Your task to perform on an android device: turn off data saver in the chrome app Image 0: 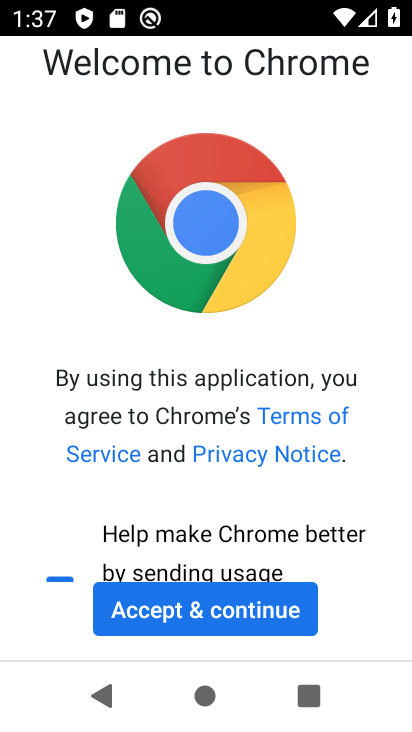
Step 0: press home button
Your task to perform on an android device: turn off data saver in the chrome app Image 1: 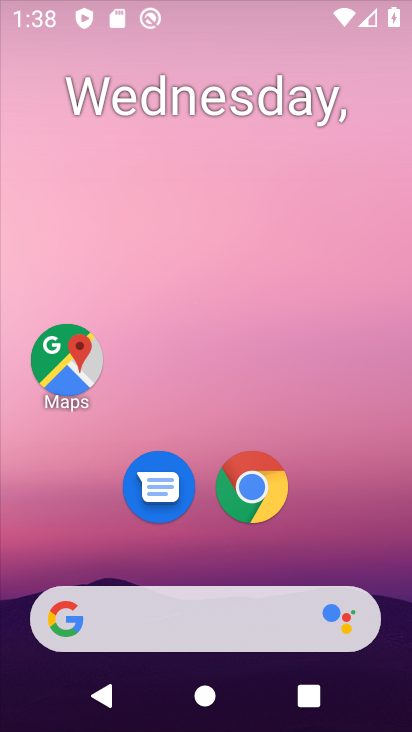
Step 1: drag from (208, 651) to (230, 3)
Your task to perform on an android device: turn off data saver in the chrome app Image 2: 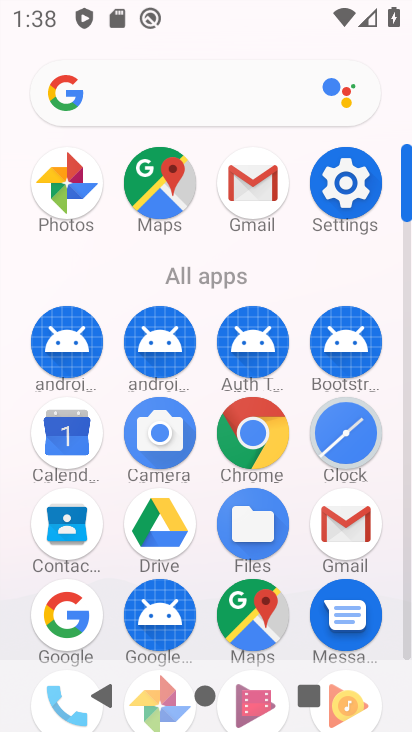
Step 2: click (260, 441)
Your task to perform on an android device: turn off data saver in the chrome app Image 3: 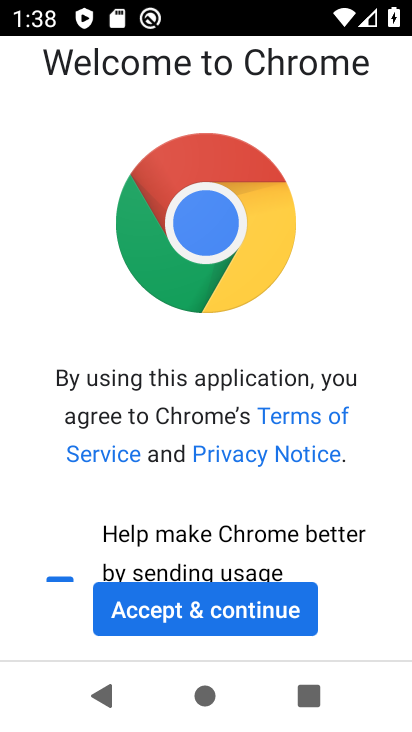
Step 3: click (230, 587)
Your task to perform on an android device: turn off data saver in the chrome app Image 4: 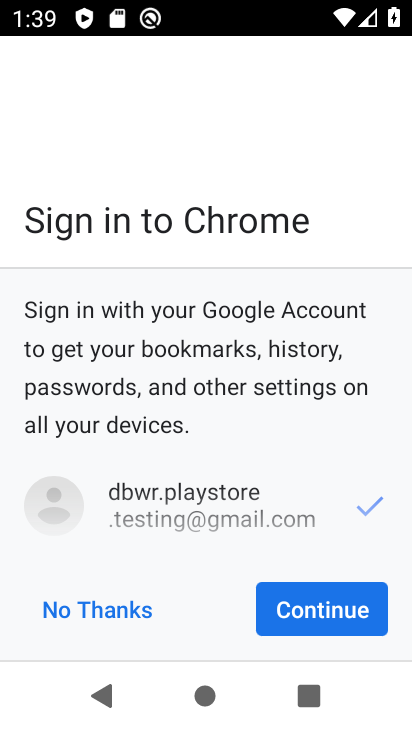
Step 4: click (333, 603)
Your task to perform on an android device: turn off data saver in the chrome app Image 5: 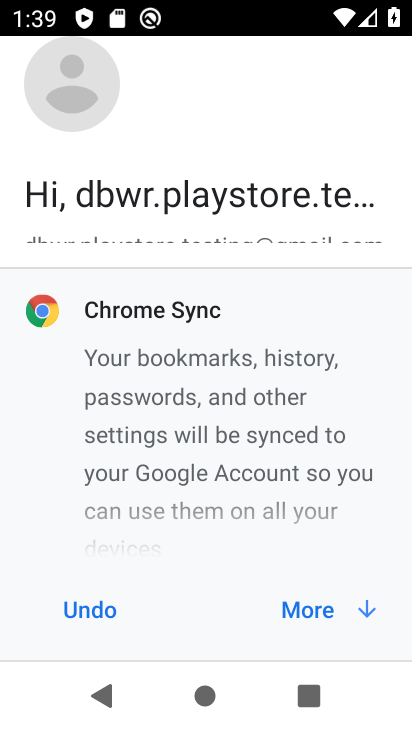
Step 5: click (86, 608)
Your task to perform on an android device: turn off data saver in the chrome app Image 6: 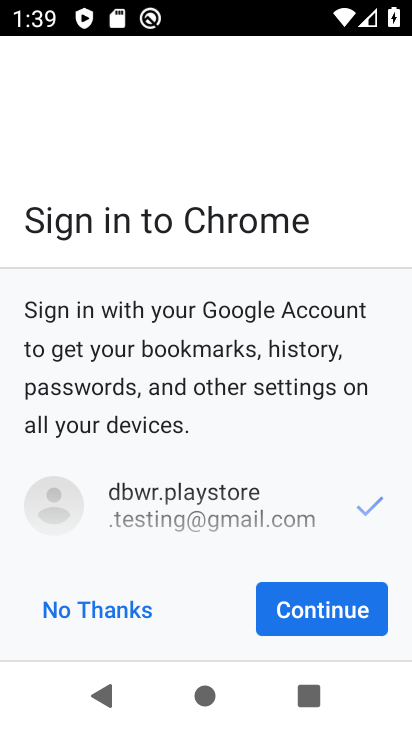
Step 6: click (84, 612)
Your task to perform on an android device: turn off data saver in the chrome app Image 7: 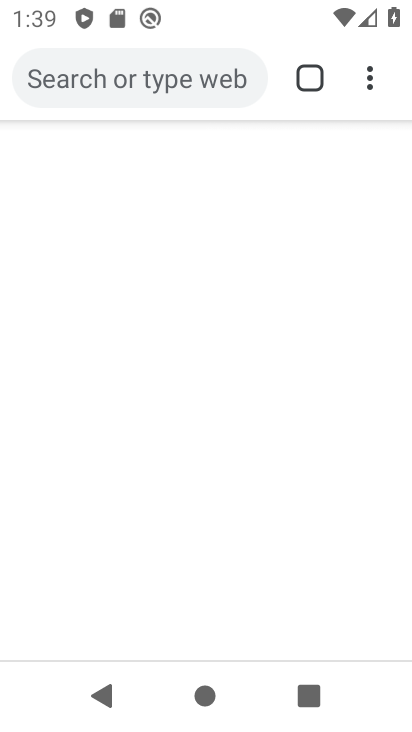
Step 7: drag from (372, 62) to (103, 550)
Your task to perform on an android device: turn off data saver in the chrome app Image 8: 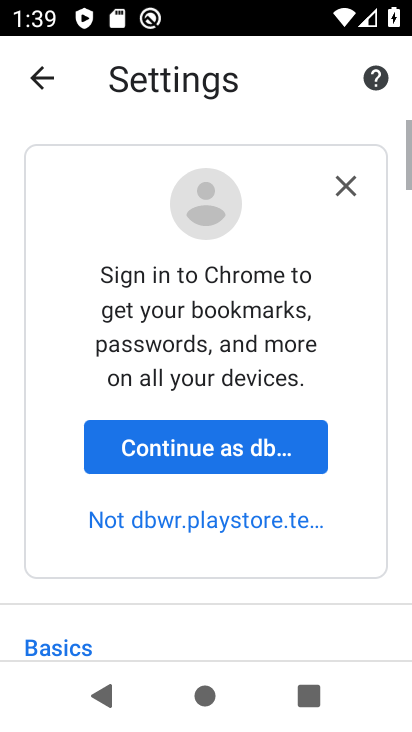
Step 8: drag from (187, 578) to (164, 114)
Your task to perform on an android device: turn off data saver in the chrome app Image 9: 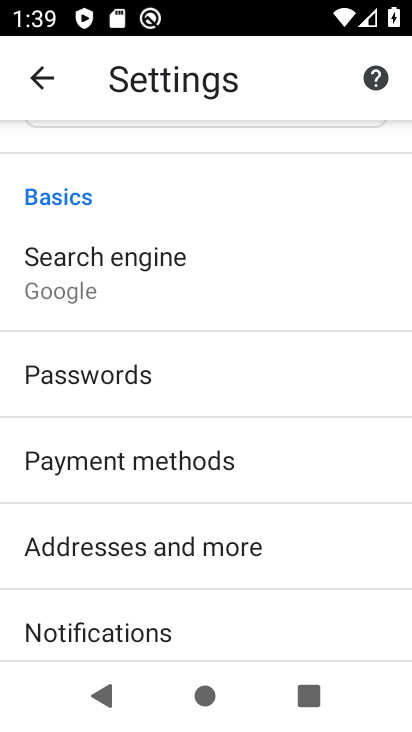
Step 9: drag from (174, 554) to (180, 75)
Your task to perform on an android device: turn off data saver in the chrome app Image 10: 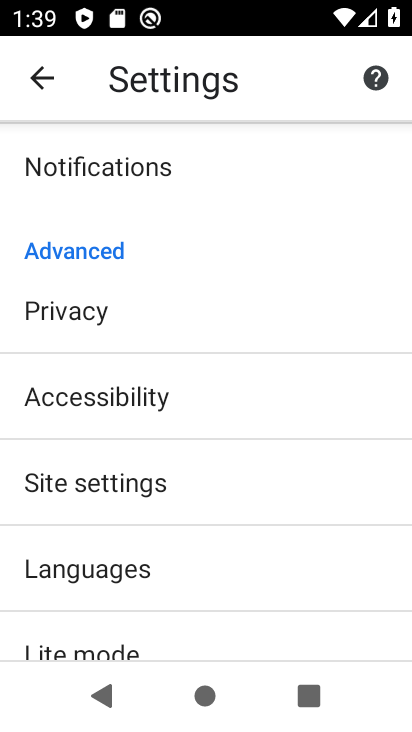
Step 10: drag from (245, 640) to (222, 315)
Your task to perform on an android device: turn off data saver in the chrome app Image 11: 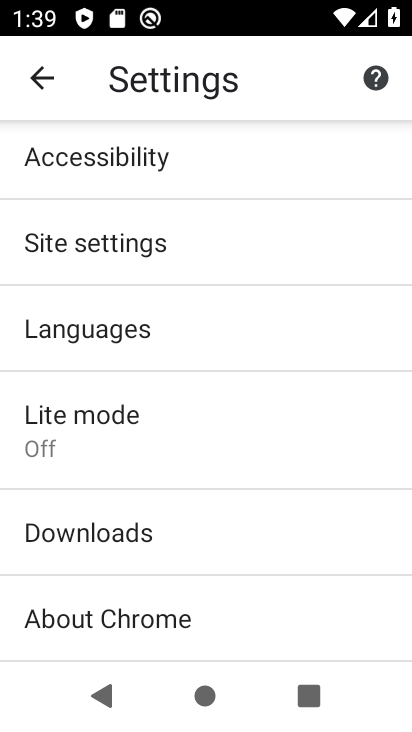
Step 11: click (185, 422)
Your task to perform on an android device: turn off data saver in the chrome app Image 12: 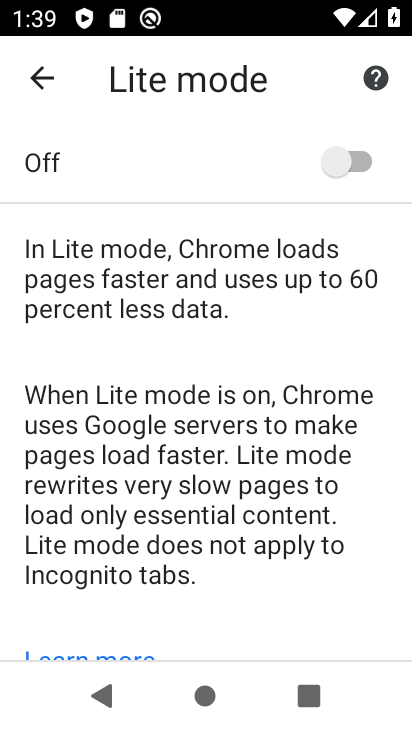
Step 12: task complete